Your task to perform on an android device: Open Yahoo.com Image 0: 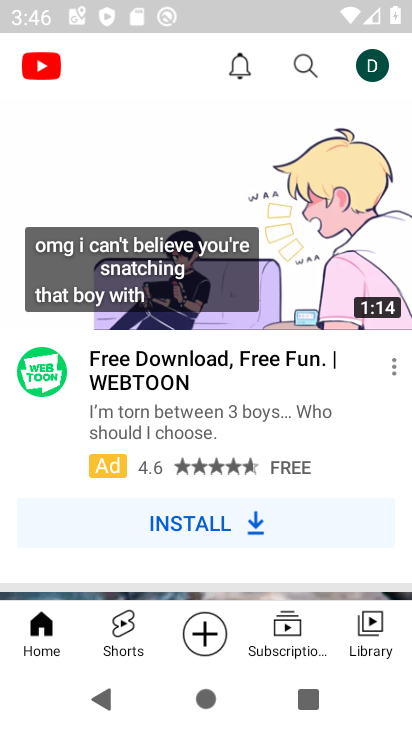
Step 0: press home button
Your task to perform on an android device: Open Yahoo.com Image 1: 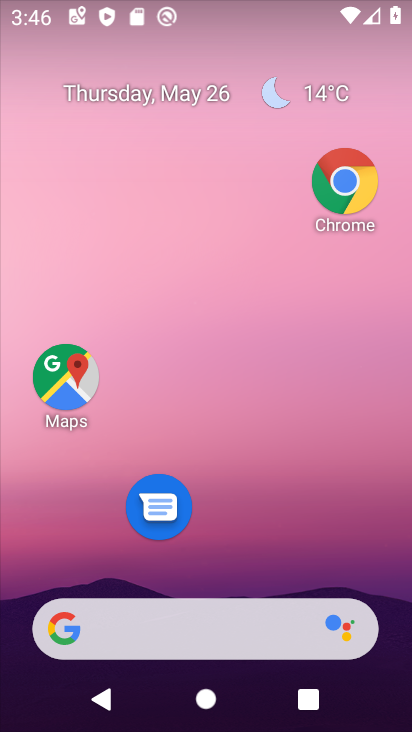
Step 1: drag from (238, 557) to (279, 87)
Your task to perform on an android device: Open Yahoo.com Image 2: 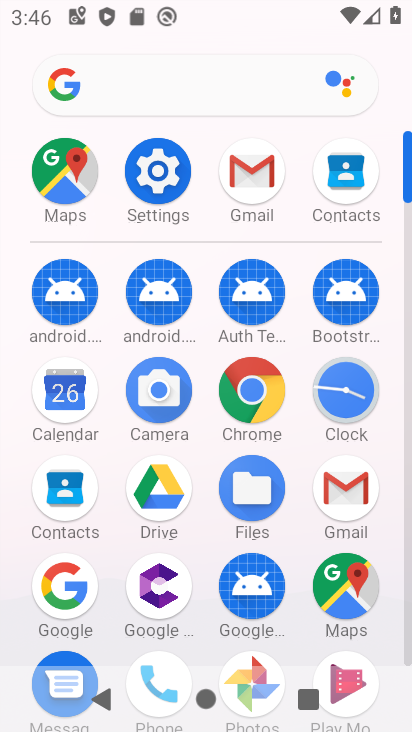
Step 2: click (253, 385)
Your task to perform on an android device: Open Yahoo.com Image 3: 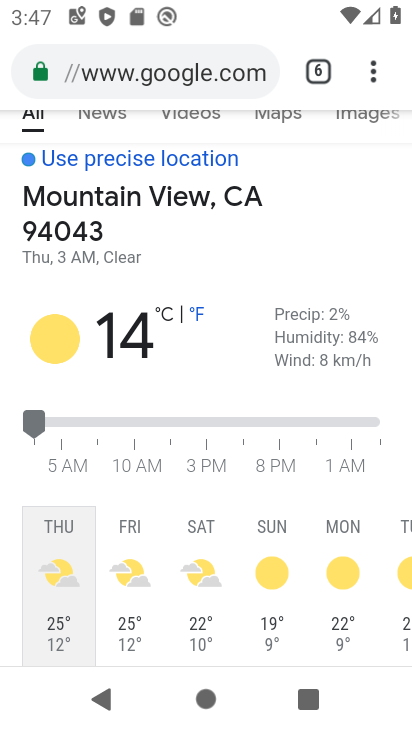
Step 3: click (182, 80)
Your task to perform on an android device: Open Yahoo.com Image 4: 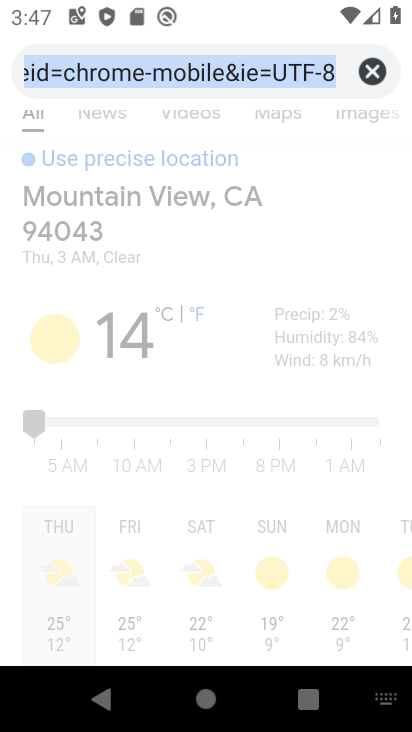
Step 4: click (369, 66)
Your task to perform on an android device: Open Yahoo.com Image 5: 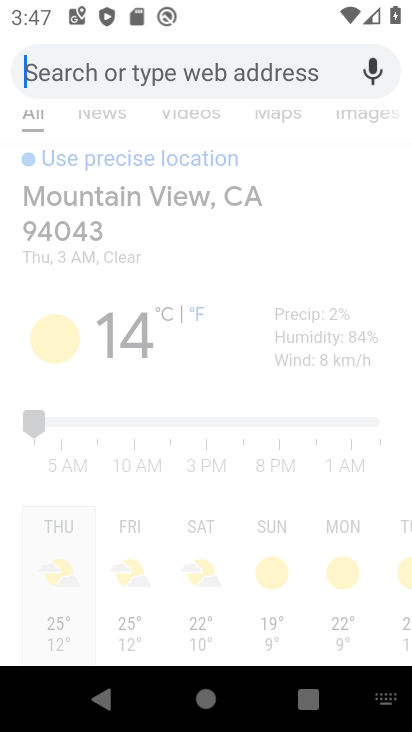
Step 5: type " Yahoo.com"
Your task to perform on an android device: Open Yahoo.com Image 6: 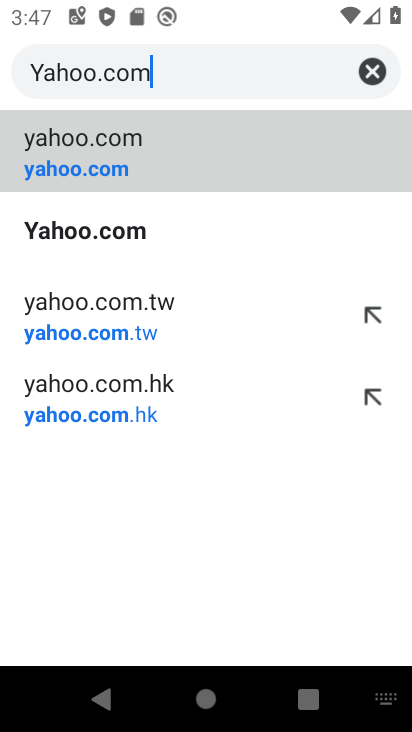
Step 6: click (93, 165)
Your task to perform on an android device: Open Yahoo.com Image 7: 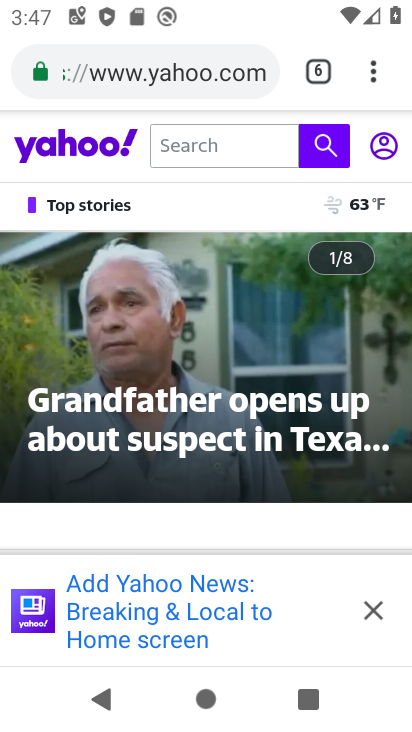
Step 7: task complete